Your task to perform on an android device: turn on showing notifications on the lock screen Image 0: 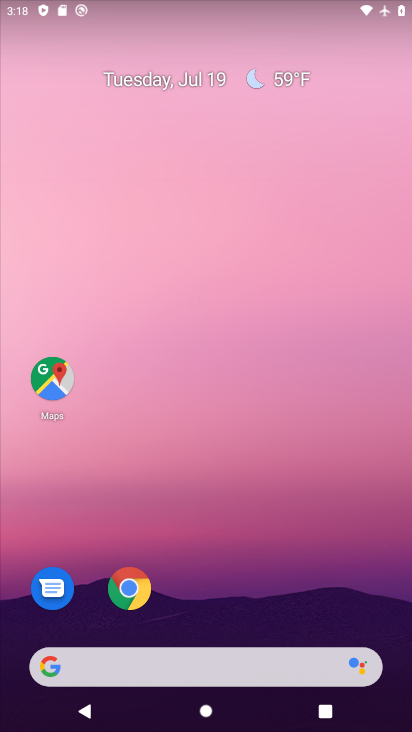
Step 0: drag from (248, 632) to (310, 4)
Your task to perform on an android device: turn on showing notifications on the lock screen Image 1: 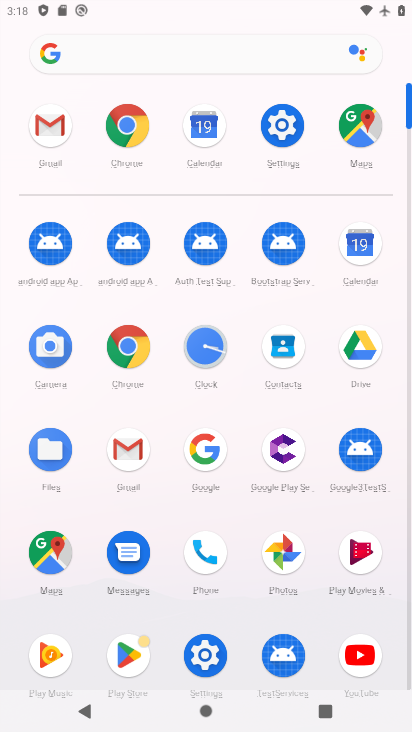
Step 1: click (283, 129)
Your task to perform on an android device: turn on showing notifications on the lock screen Image 2: 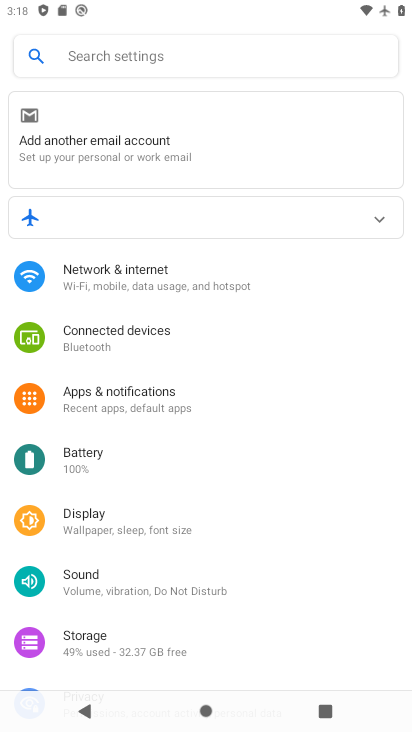
Step 2: click (100, 399)
Your task to perform on an android device: turn on showing notifications on the lock screen Image 3: 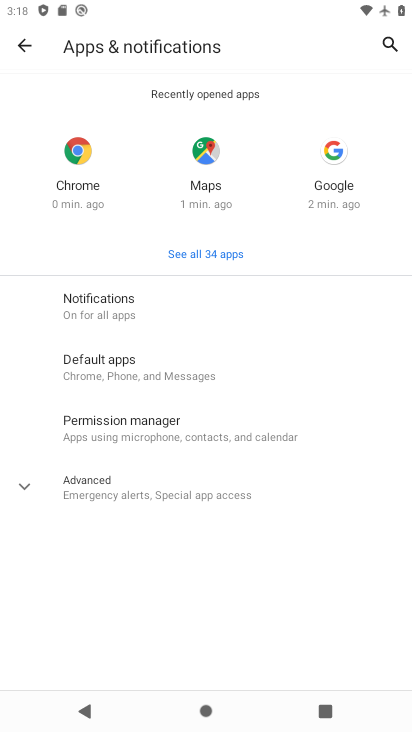
Step 3: click (80, 305)
Your task to perform on an android device: turn on showing notifications on the lock screen Image 4: 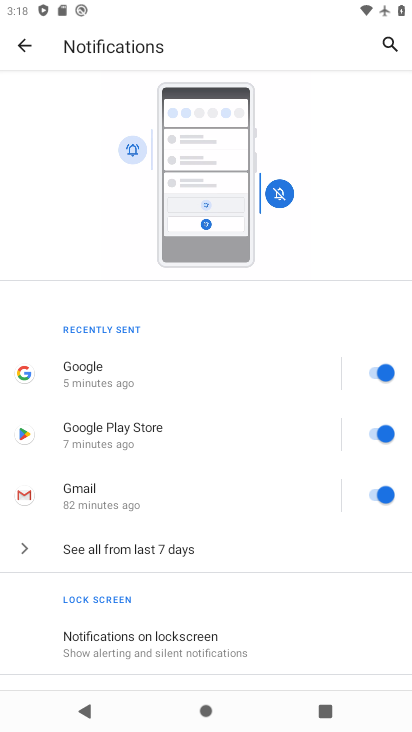
Step 4: click (173, 644)
Your task to perform on an android device: turn on showing notifications on the lock screen Image 5: 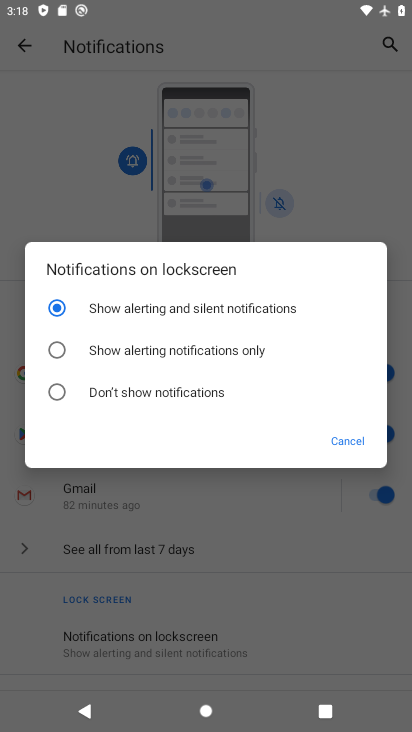
Step 5: task complete